Your task to perform on an android device: change keyboard looks Image 0: 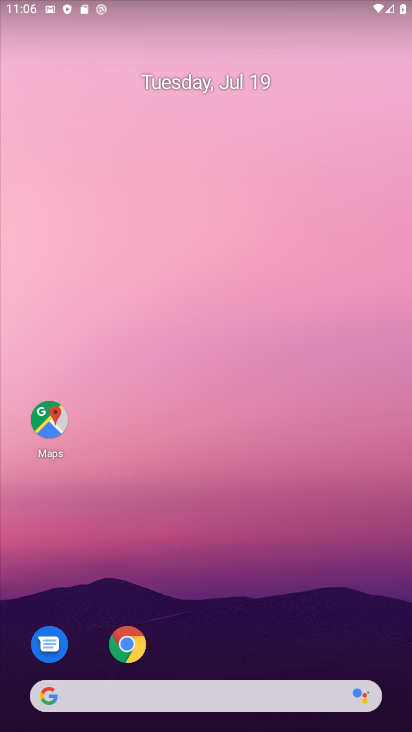
Step 0: drag from (183, 645) to (314, 0)
Your task to perform on an android device: change keyboard looks Image 1: 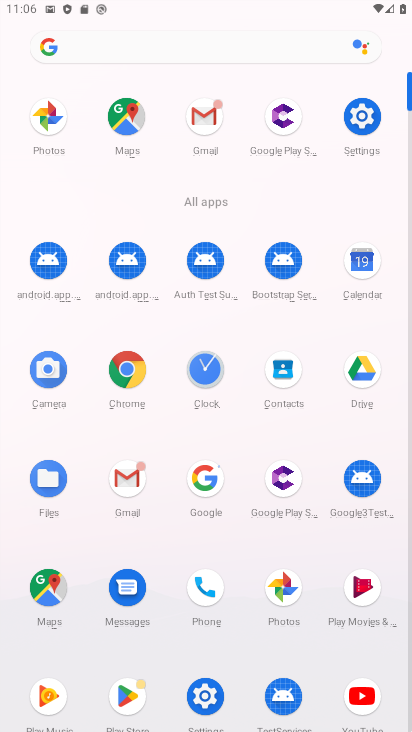
Step 1: click (190, 704)
Your task to perform on an android device: change keyboard looks Image 2: 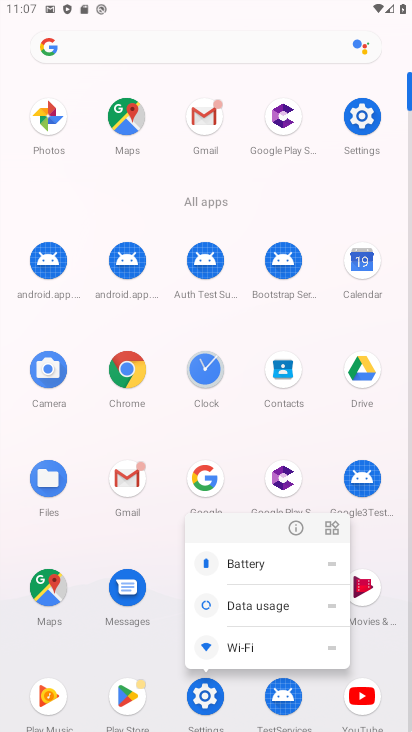
Step 2: click (292, 520)
Your task to perform on an android device: change keyboard looks Image 3: 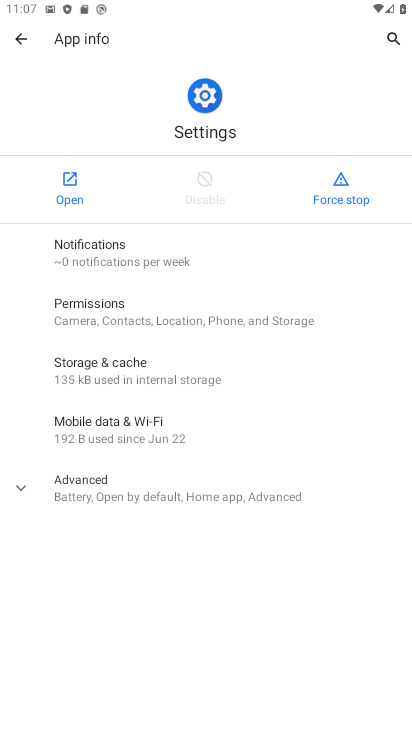
Step 3: click (73, 181)
Your task to perform on an android device: change keyboard looks Image 4: 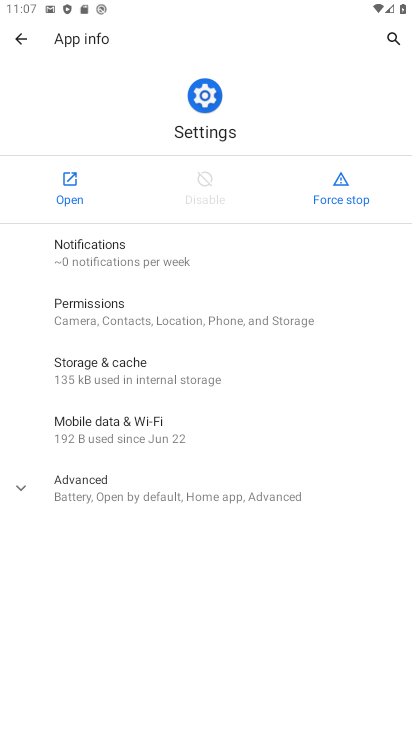
Step 4: click (73, 181)
Your task to perform on an android device: change keyboard looks Image 5: 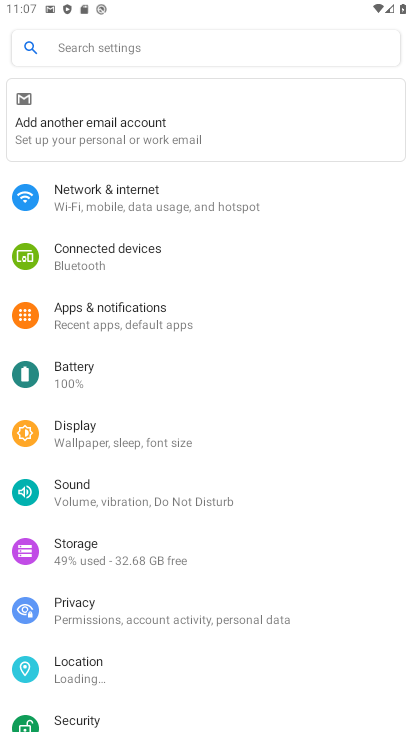
Step 5: drag from (155, 643) to (235, 161)
Your task to perform on an android device: change keyboard looks Image 6: 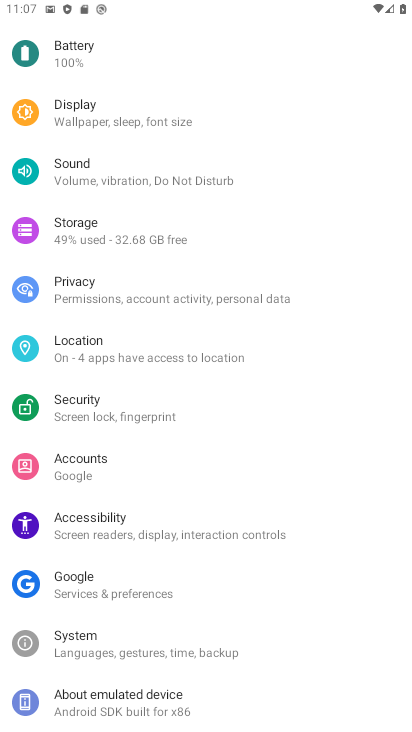
Step 6: drag from (156, 706) to (254, 206)
Your task to perform on an android device: change keyboard looks Image 7: 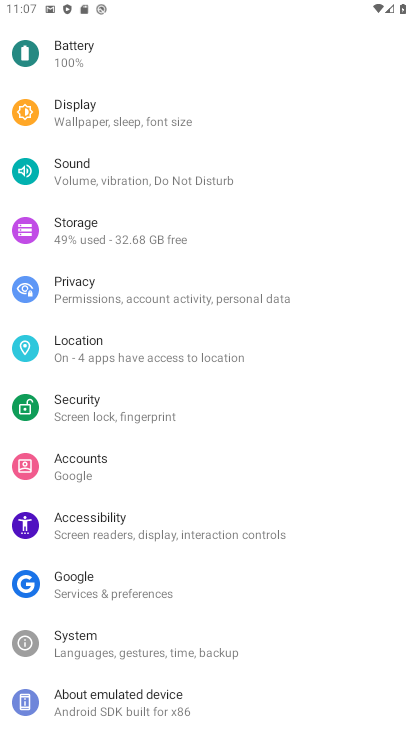
Step 7: click (98, 635)
Your task to perform on an android device: change keyboard looks Image 8: 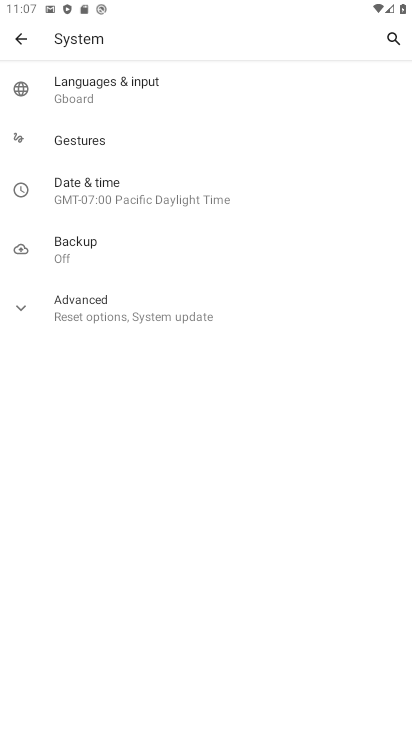
Step 8: click (96, 89)
Your task to perform on an android device: change keyboard looks Image 9: 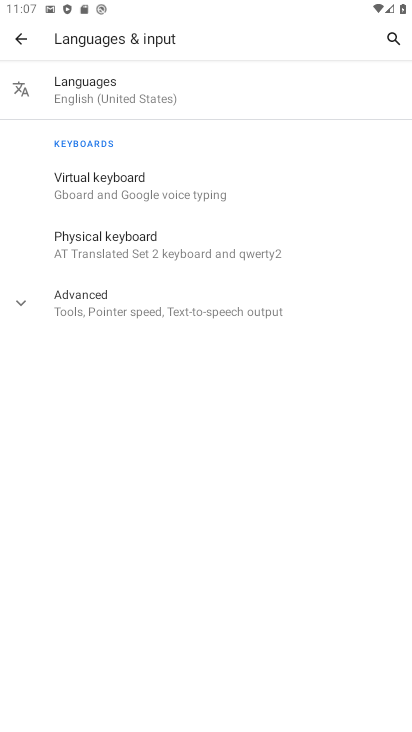
Step 9: click (162, 178)
Your task to perform on an android device: change keyboard looks Image 10: 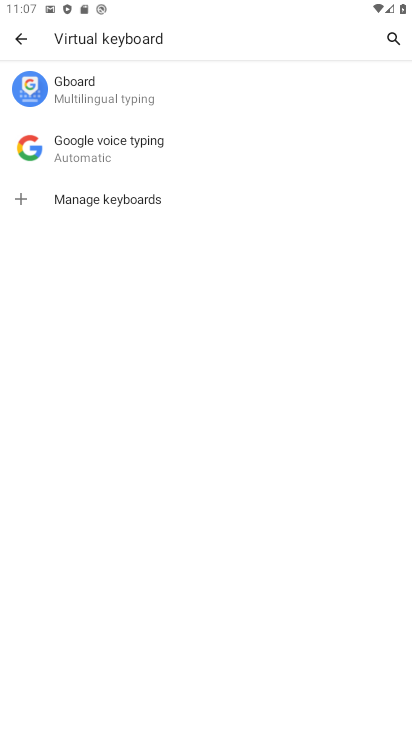
Step 10: click (130, 98)
Your task to perform on an android device: change keyboard looks Image 11: 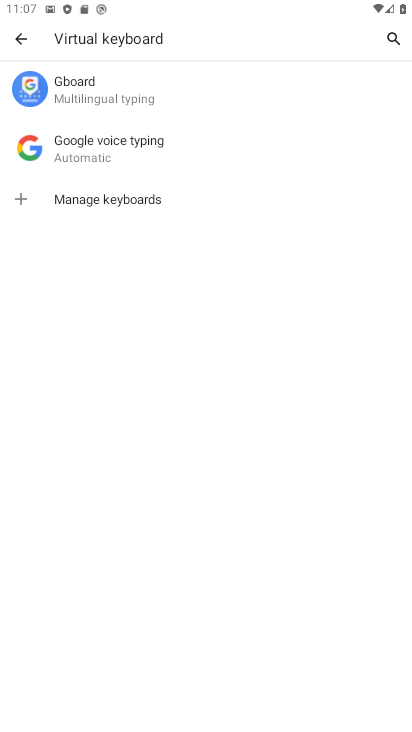
Step 11: click (129, 97)
Your task to perform on an android device: change keyboard looks Image 12: 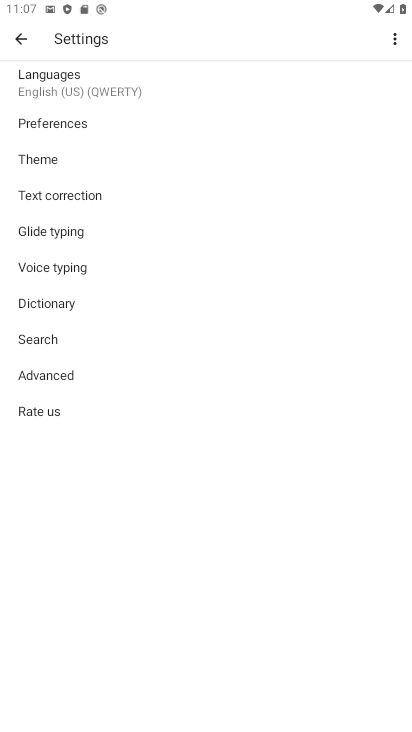
Step 12: click (64, 154)
Your task to perform on an android device: change keyboard looks Image 13: 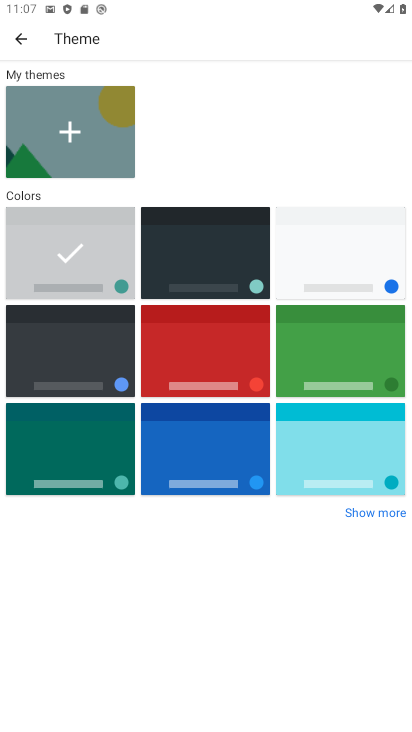
Step 13: click (218, 265)
Your task to perform on an android device: change keyboard looks Image 14: 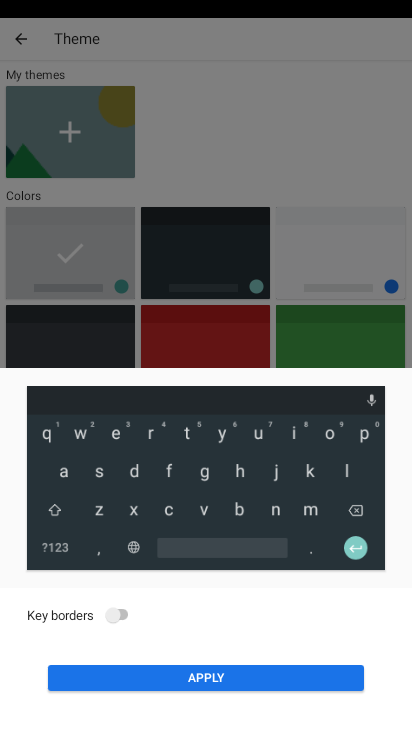
Step 14: click (191, 683)
Your task to perform on an android device: change keyboard looks Image 15: 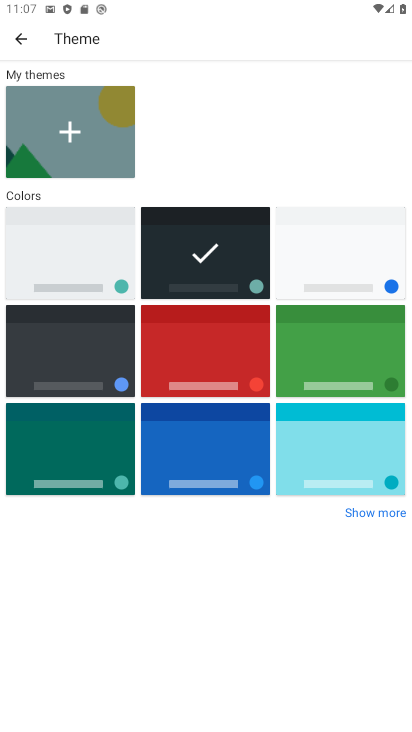
Step 15: task complete